Your task to perform on an android device: When is my next meeting? Image 0: 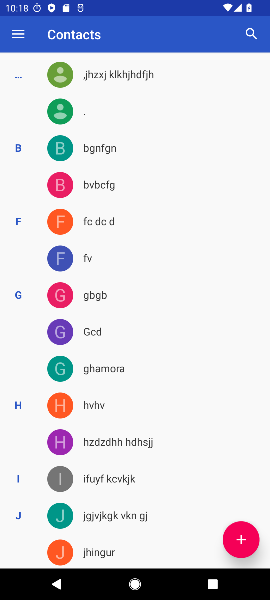
Step 0: press home button
Your task to perform on an android device: When is my next meeting? Image 1: 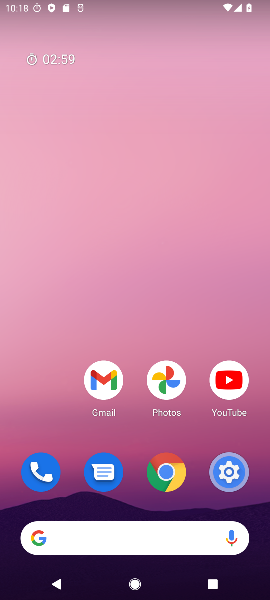
Step 1: drag from (191, 327) to (223, 0)
Your task to perform on an android device: When is my next meeting? Image 2: 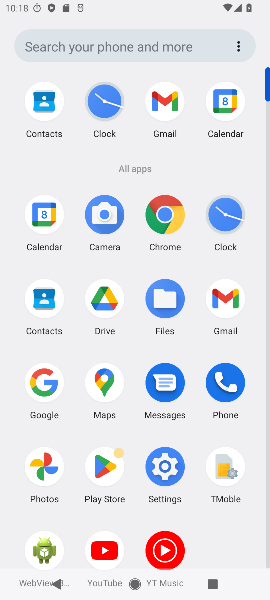
Step 2: click (234, 104)
Your task to perform on an android device: When is my next meeting? Image 3: 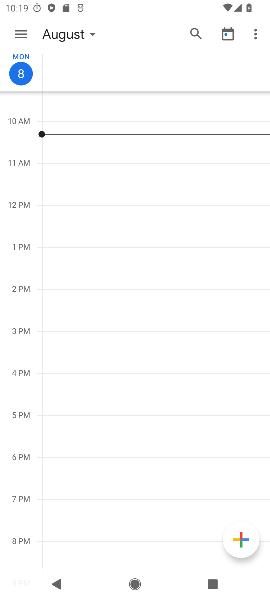
Step 3: click (27, 38)
Your task to perform on an android device: When is my next meeting? Image 4: 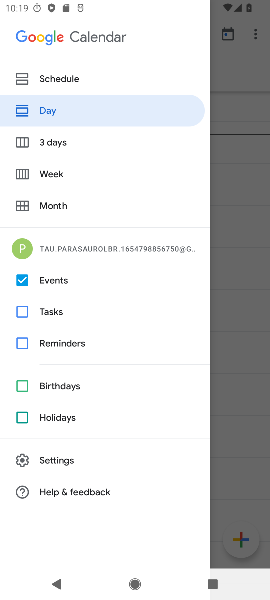
Step 4: click (66, 69)
Your task to perform on an android device: When is my next meeting? Image 5: 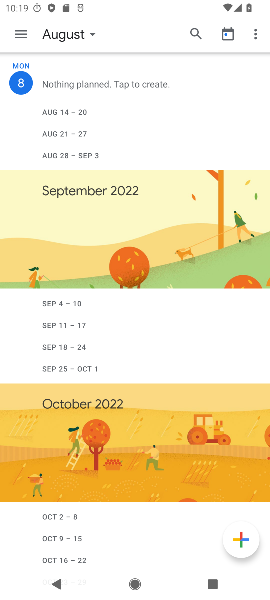
Step 5: task complete